Your task to perform on an android device: turn on data saver in the chrome app Image 0: 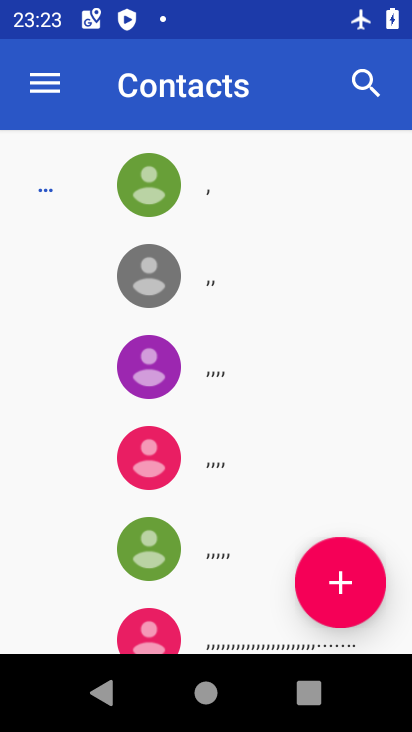
Step 0: drag from (259, 11) to (290, 412)
Your task to perform on an android device: turn on data saver in the chrome app Image 1: 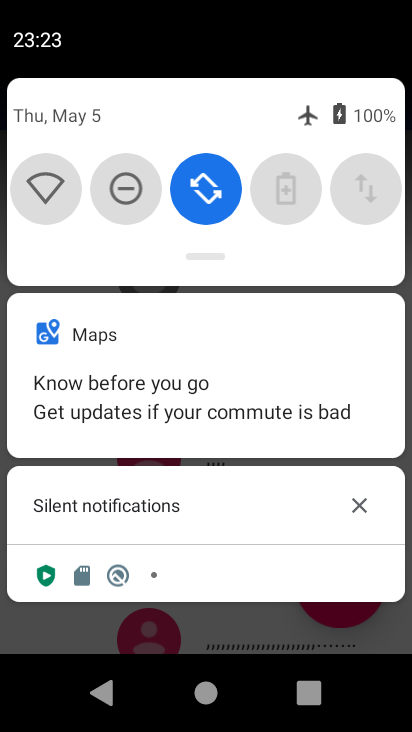
Step 1: drag from (333, 196) to (10, 229)
Your task to perform on an android device: turn on data saver in the chrome app Image 2: 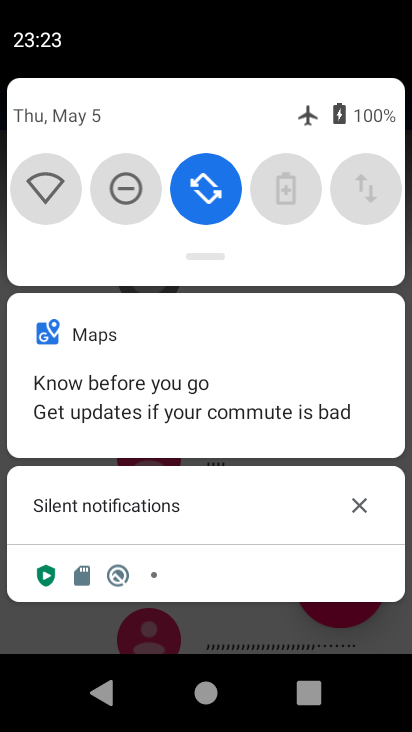
Step 2: drag from (142, 232) to (134, 566)
Your task to perform on an android device: turn on data saver in the chrome app Image 3: 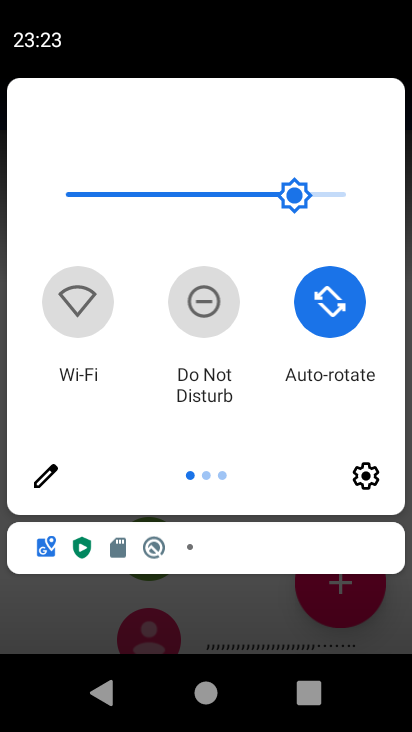
Step 3: drag from (342, 400) to (36, 388)
Your task to perform on an android device: turn on data saver in the chrome app Image 4: 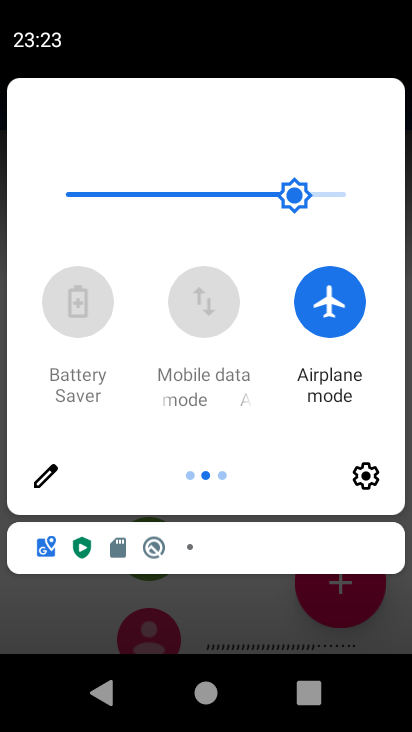
Step 4: click (338, 310)
Your task to perform on an android device: turn on data saver in the chrome app Image 5: 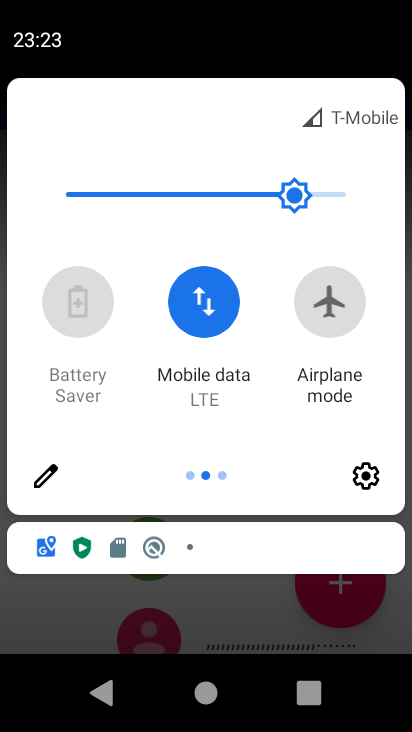
Step 5: click (246, 617)
Your task to perform on an android device: turn on data saver in the chrome app Image 6: 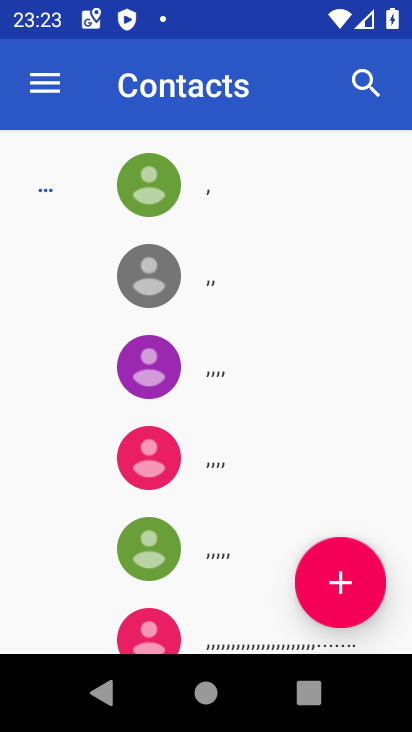
Step 6: press home button
Your task to perform on an android device: turn on data saver in the chrome app Image 7: 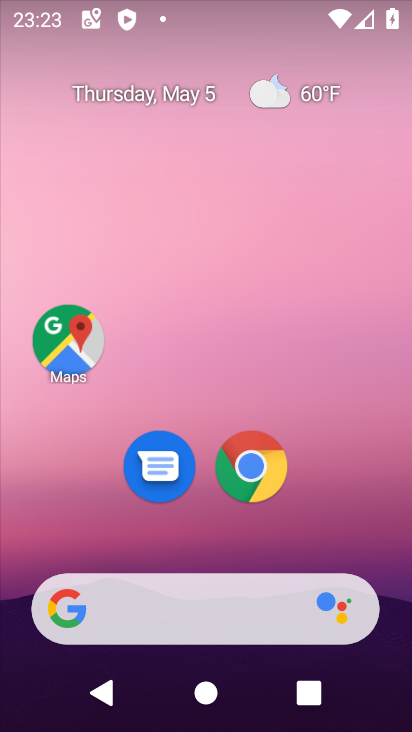
Step 7: click (247, 470)
Your task to perform on an android device: turn on data saver in the chrome app Image 8: 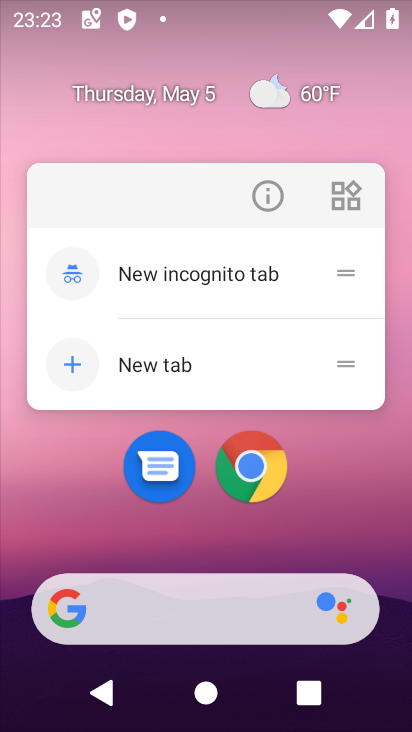
Step 8: click (255, 475)
Your task to perform on an android device: turn on data saver in the chrome app Image 9: 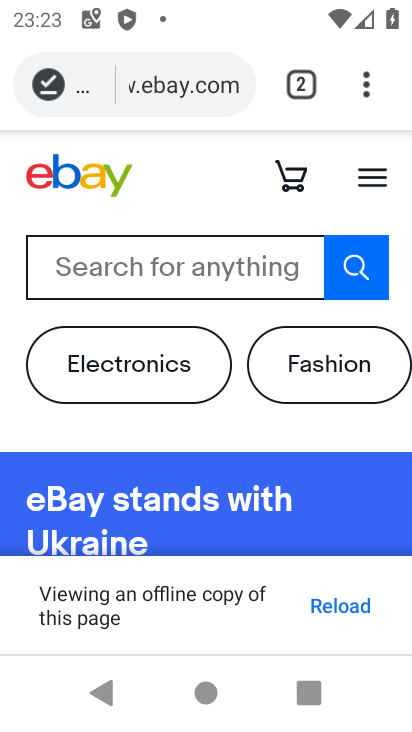
Step 9: click (362, 88)
Your task to perform on an android device: turn on data saver in the chrome app Image 10: 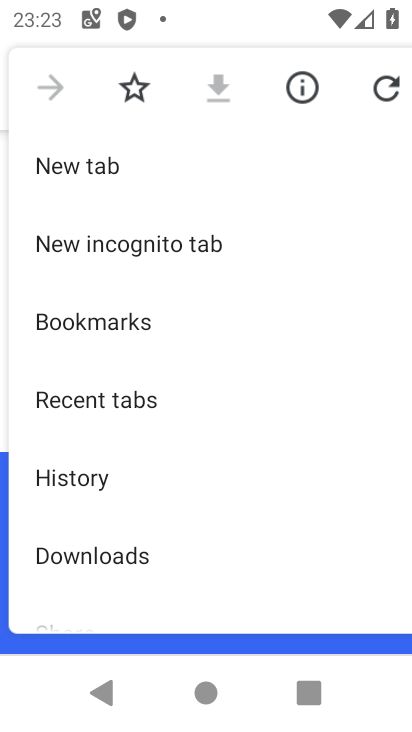
Step 10: drag from (126, 588) to (161, 219)
Your task to perform on an android device: turn on data saver in the chrome app Image 11: 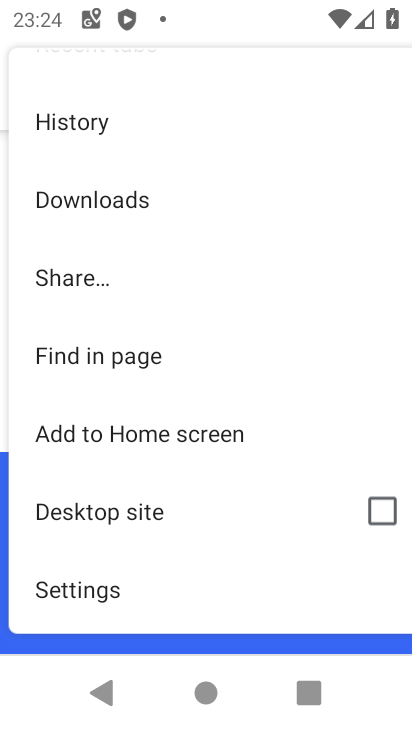
Step 11: click (95, 590)
Your task to perform on an android device: turn on data saver in the chrome app Image 12: 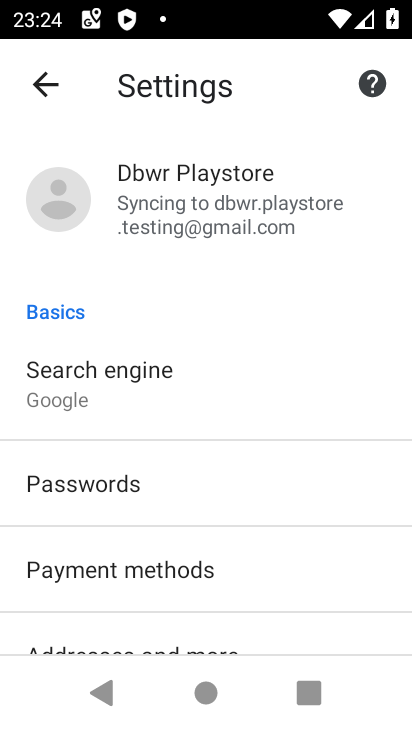
Step 12: drag from (136, 635) to (155, 231)
Your task to perform on an android device: turn on data saver in the chrome app Image 13: 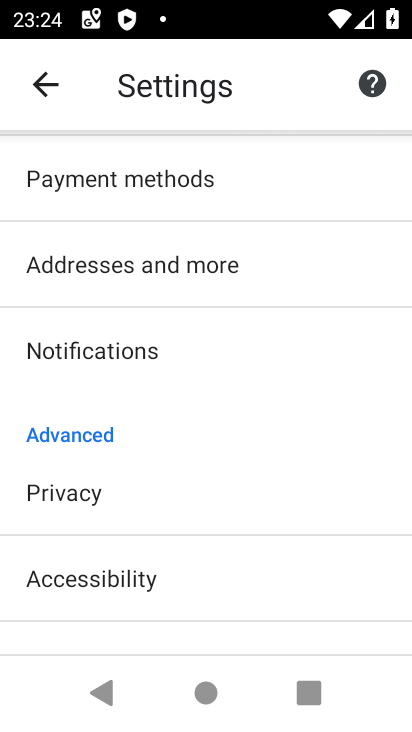
Step 13: drag from (109, 573) to (151, 316)
Your task to perform on an android device: turn on data saver in the chrome app Image 14: 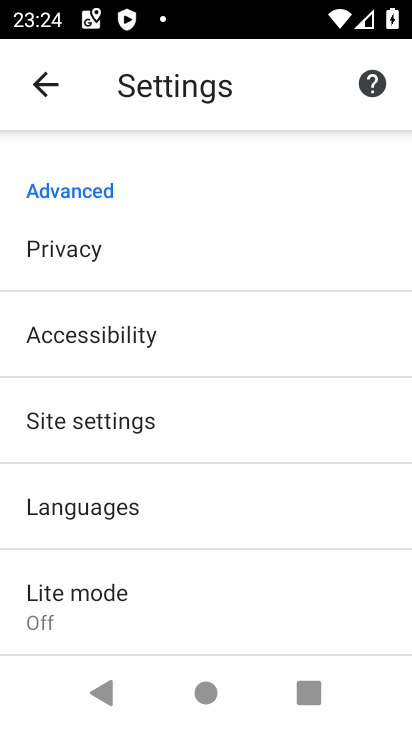
Step 14: click (89, 606)
Your task to perform on an android device: turn on data saver in the chrome app Image 15: 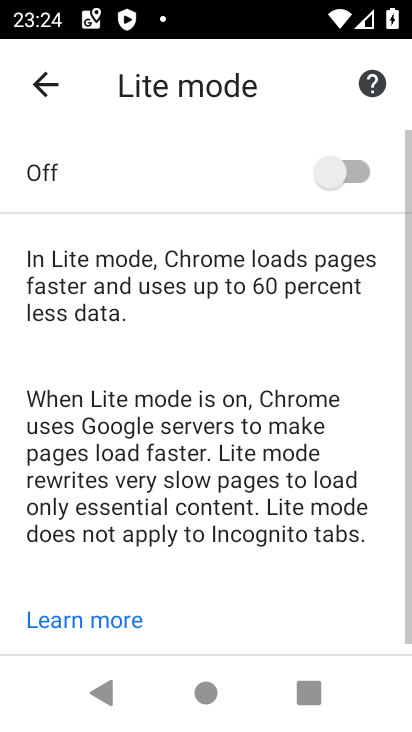
Step 15: click (355, 176)
Your task to perform on an android device: turn on data saver in the chrome app Image 16: 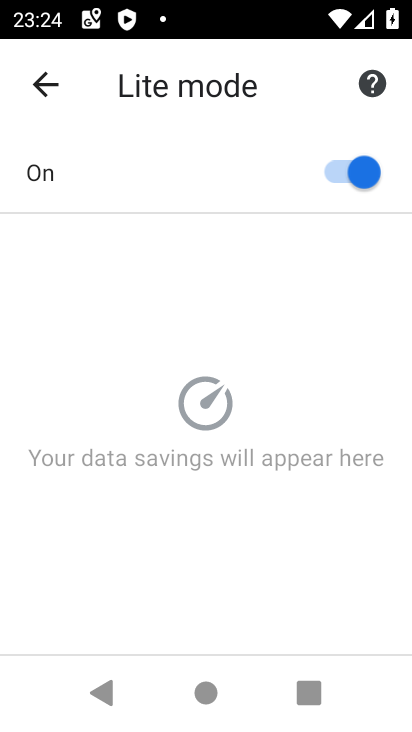
Step 16: task complete